Your task to perform on an android device: change text size in settings app Image 0: 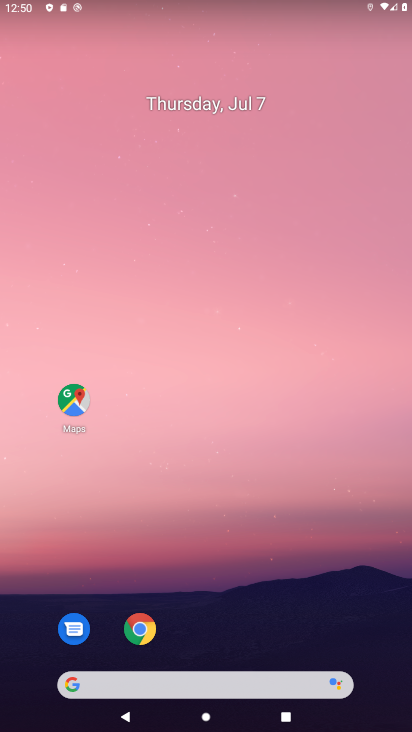
Step 0: drag from (220, 626) to (271, 12)
Your task to perform on an android device: change text size in settings app Image 1: 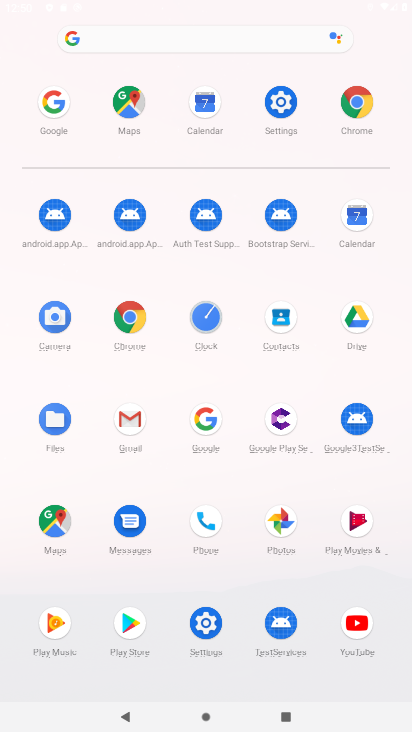
Step 1: click (278, 101)
Your task to perform on an android device: change text size in settings app Image 2: 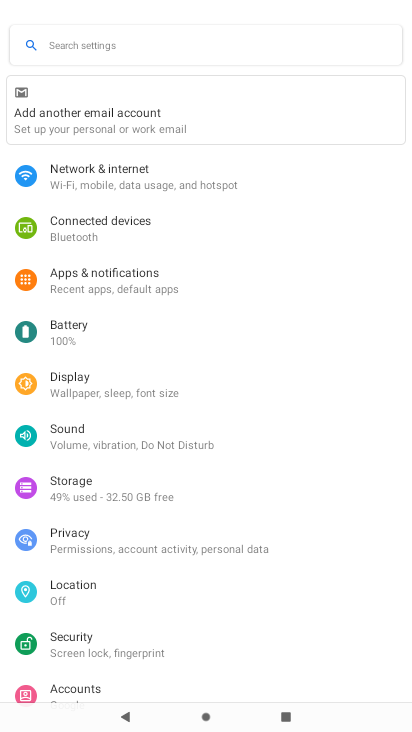
Step 2: click (118, 383)
Your task to perform on an android device: change text size in settings app Image 3: 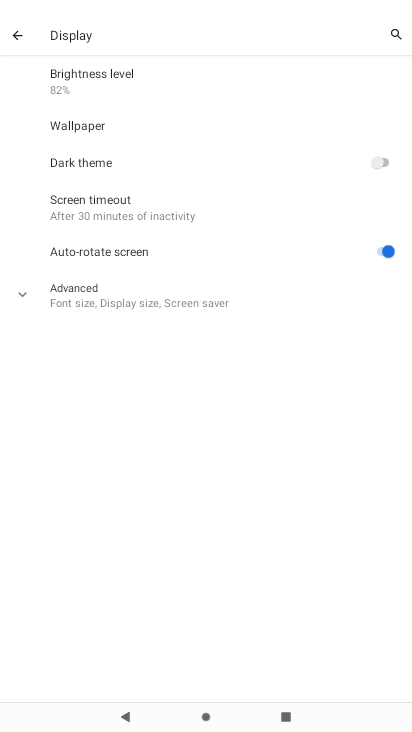
Step 3: click (98, 296)
Your task to perform on an android device: change text size in settings app Image 4: 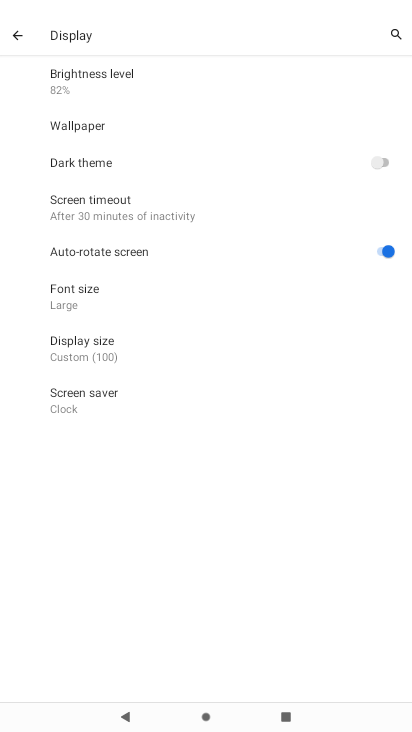
Step 4: click (99, 298)
Your task to perform on an android device: change text size in settings app Image 5: 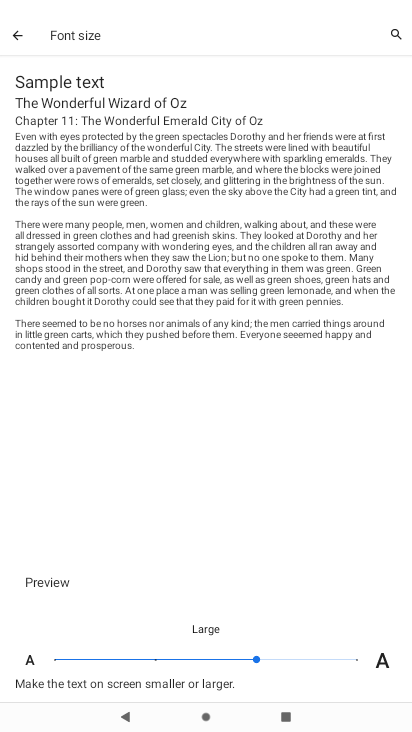
Step 5: task complete